Your task to perform on an android device: Open Youtube and go to "Your channel" Image 0: 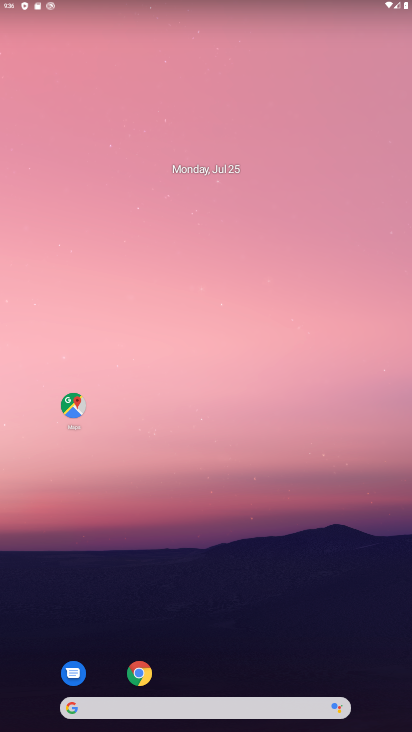
Step 0: press home button
Your task to perform on an android device: Open Youtube and go to "Your channel" Image 1: 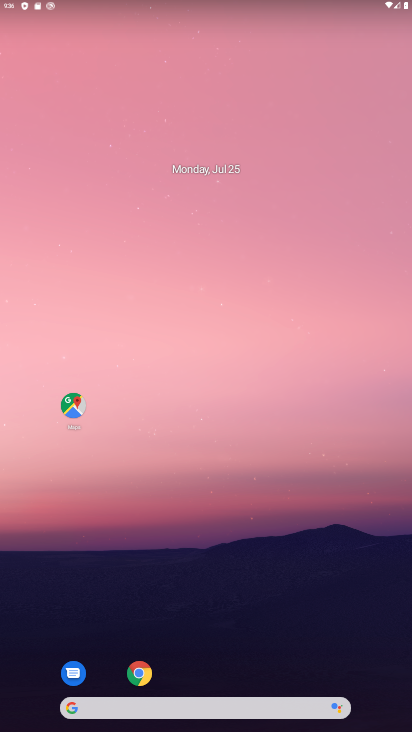
Step 1: drag from (286, 620) to (296, 59)
Your task to perform on an android device: Open Youtube and go to "Your channel" Image 2: 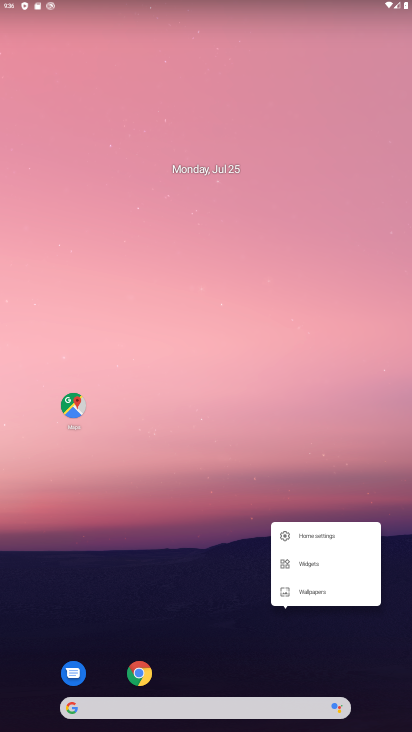
Step 2: click (139, 562)
Your task to perform on an android device: Open Youtube and go to "Your channel" Image 3: 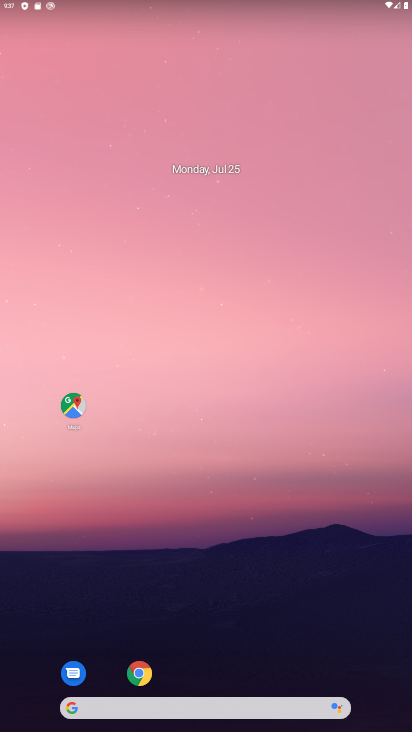
Step 3: drag from (224, 633) to (276, 106)
Your task to perform on an android device: Open Youtube and go to "Your channel" Image 4: 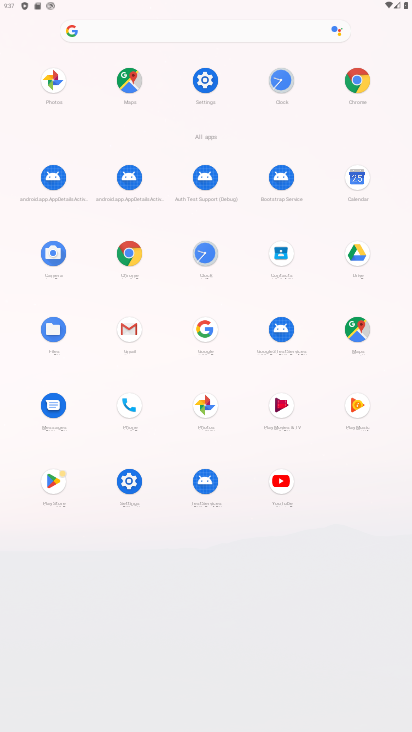
Step 4: click (279, 478)
Your task to perform on an android device: Open Youtube and go to "Your channel" Image 5: 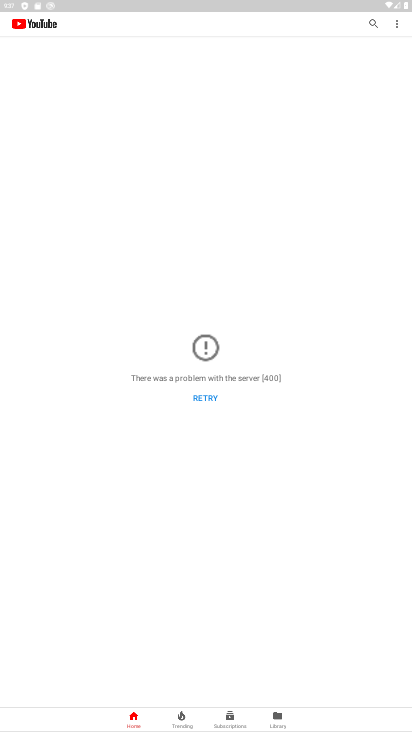
Step 5: task complete